Your task to perform on an android device: change alarm snooze length Image 0: 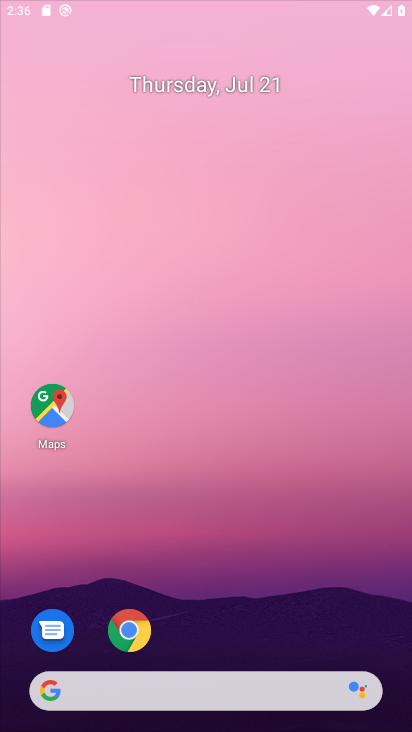
Step 0: drag from (183, 263) to (183, 145)
Your task to perform on an android device: change alarm snooze length Image 1: 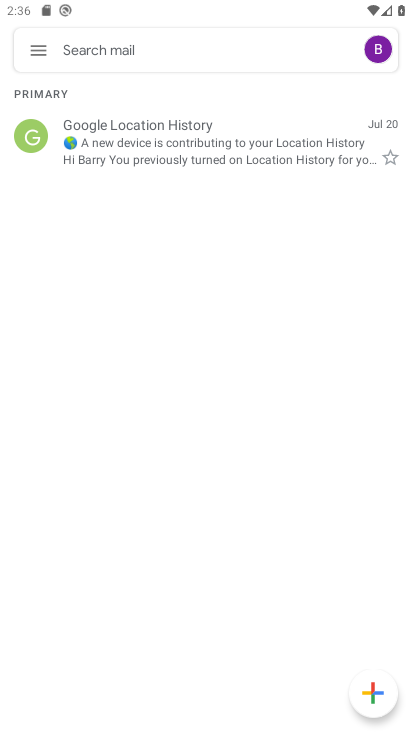
Step 1: press back button
Your task to perform on an android device: change alarm snooze length Image 2: 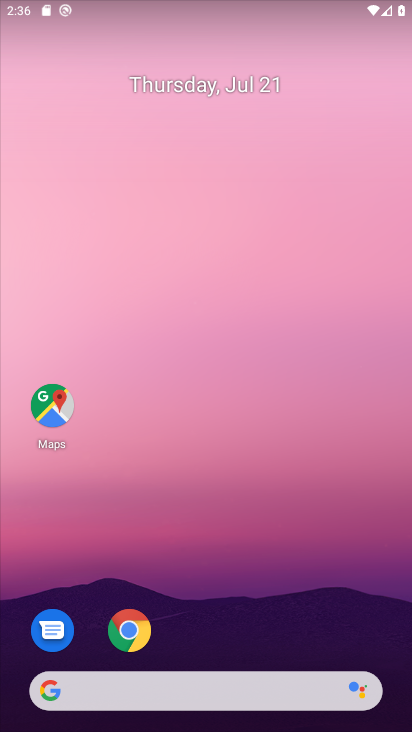
Step 2: drag from (214, 658) to (167, 144)
Your task to perform on an android device: change alarm snooze length Image 3: 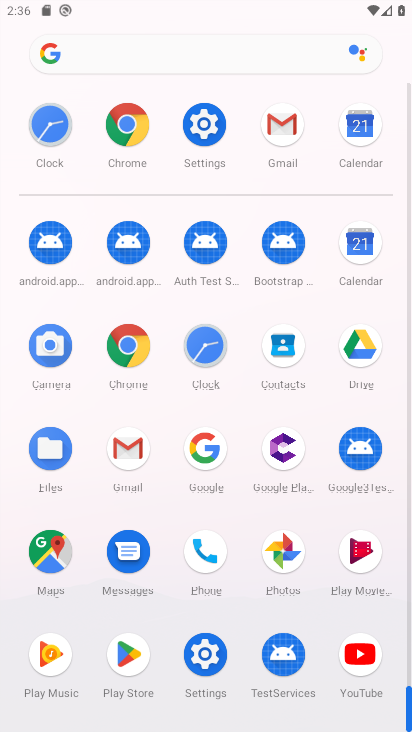
Step 3: click (198, 344)
Your task to perform on an android device: change alarm snooze length Image 4: 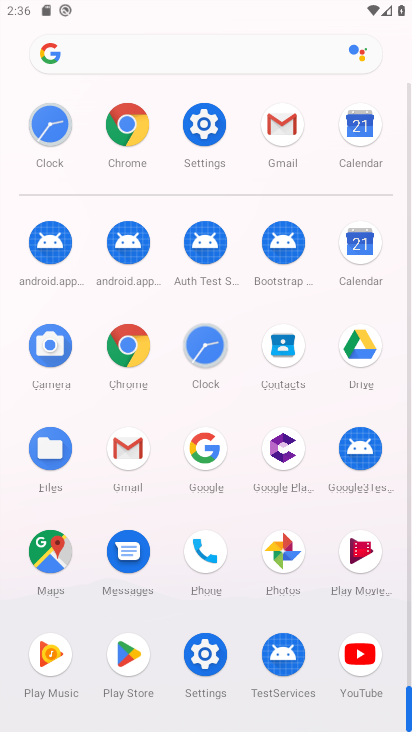
Step 4: click (198, 344)
Your task to perform on an android device: change alarm snooze length Image 5: 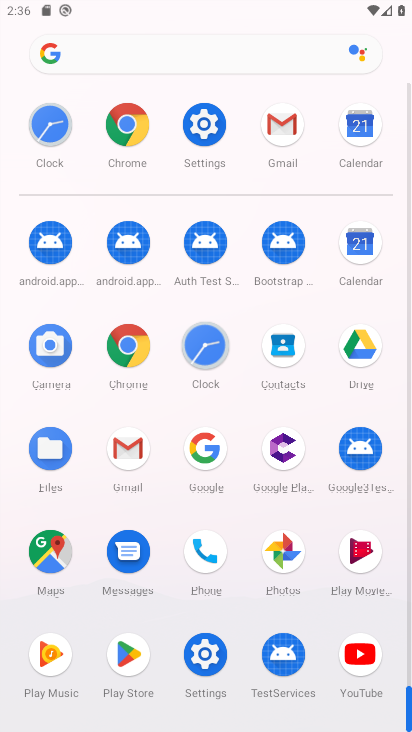
Step 5: click (200, 345)
Your task to perform on an android device: change alarm snooze length Image 6: 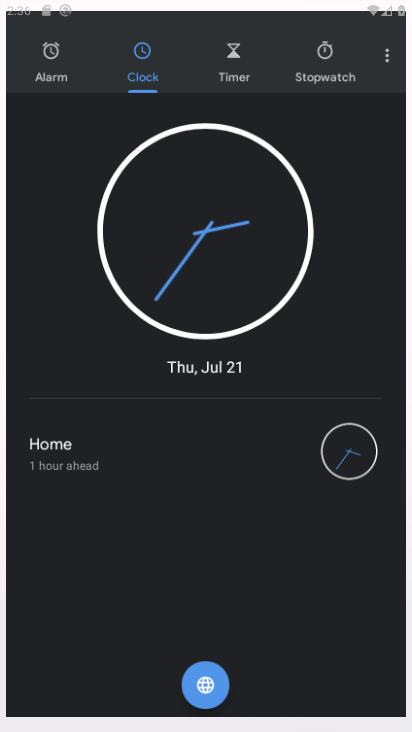
Step 6: click (201, 345)
Your task to perform on an android device: change alarm snooze length Image 7: 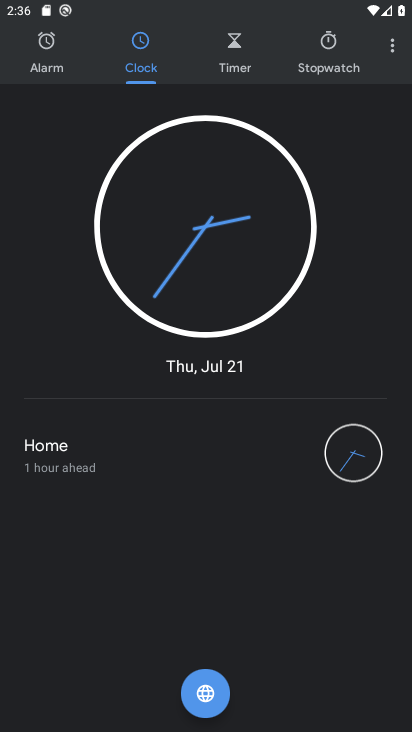
Step 7: click (396, 46)
Your task to perform on an android device: change alarm snooze length Image 8: 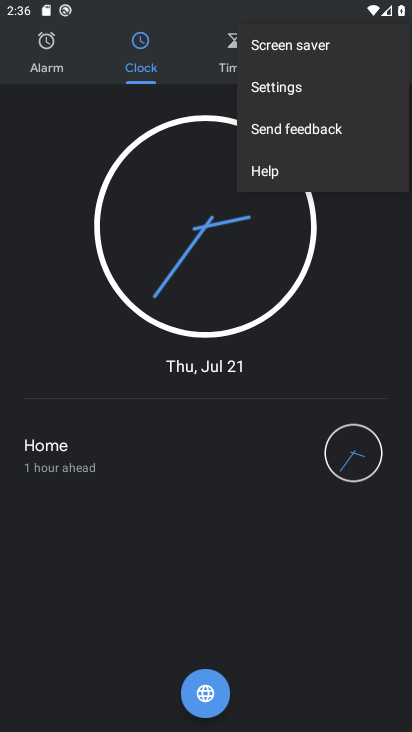
Step 8: click (282, 81)
Your task to perform on an android device: change alarm snooze length Image 9: 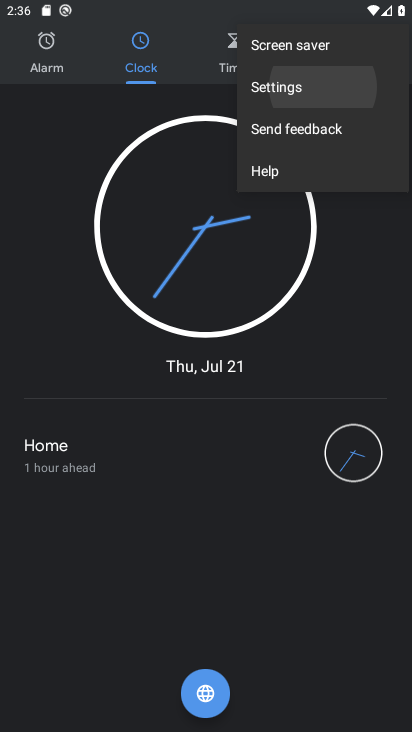
Step 9: click (282, 81)
Your task to perform on an android device: change alarm snooze length Image 10: 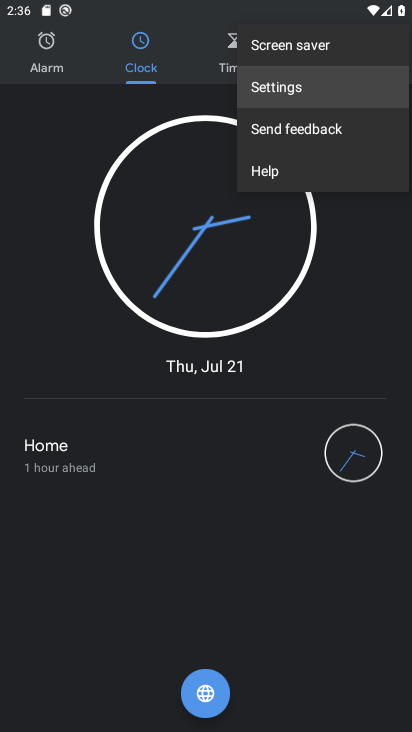
Step 10: click (282, 81)
Your task to perform on an android device: change alarm snooze length Image 11: 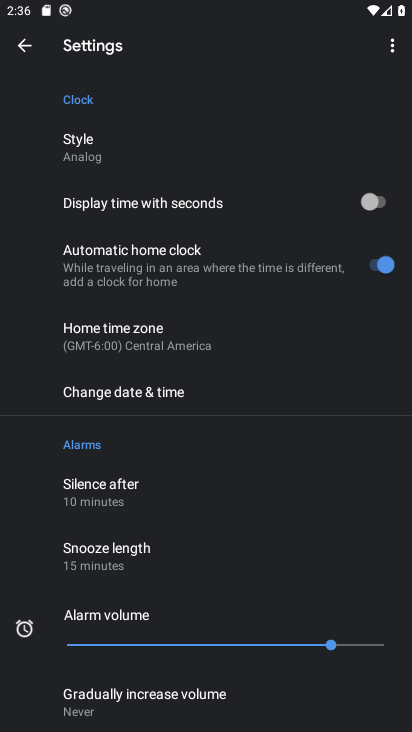
Step 11: click (105, 552)
Your task to perform on an android device: change alarm snooze length Image 12: 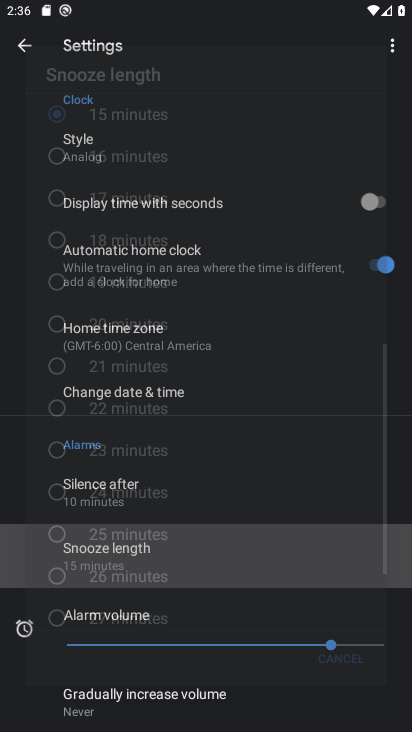
Step 12: click (103, 553)
Your task to perform on an android device: change alarm snooze length Image 13: 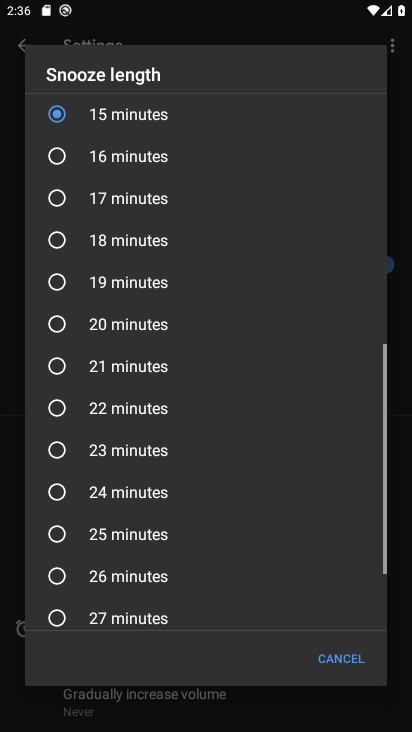
Step 13: click (103, 553)
Your task to perform on an android device: change alarm snooze length Image 14: 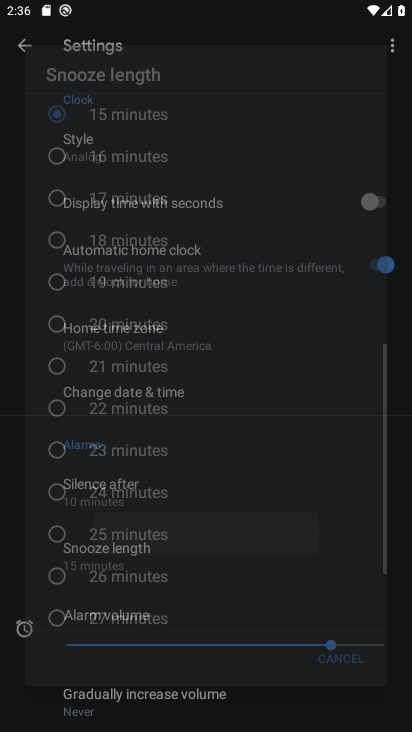
Step 14: click (103, 553)
Your task to perform on an android device: change alarm snooze length Image 15: 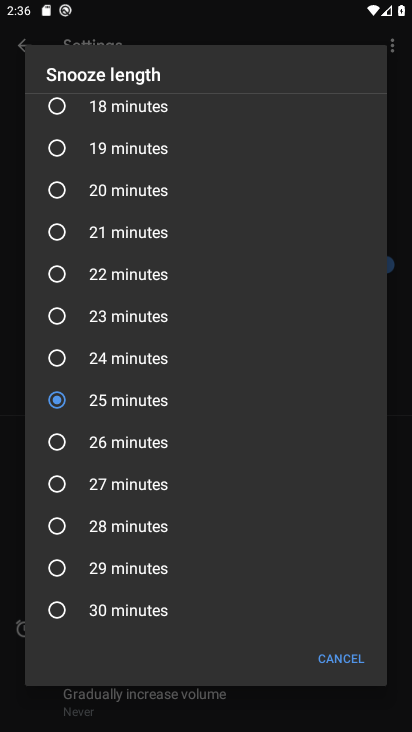
Step 15: click (346, 656)
Your task to perform on an android device: change alarm snooze length Image 16: 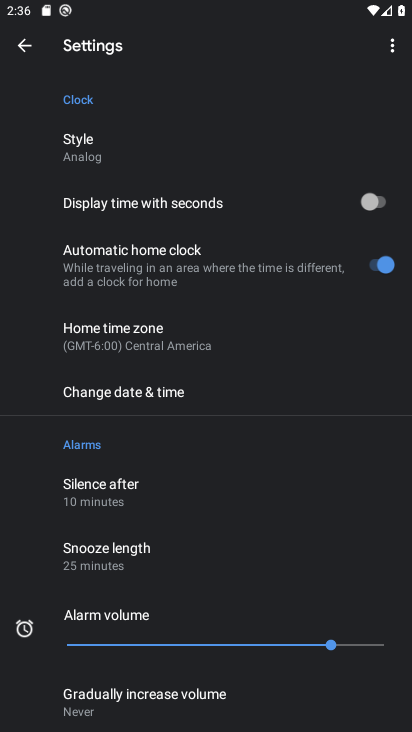
Step 16: task complete